Your task to perform on an android device: Is it going to rain today? Image 0: 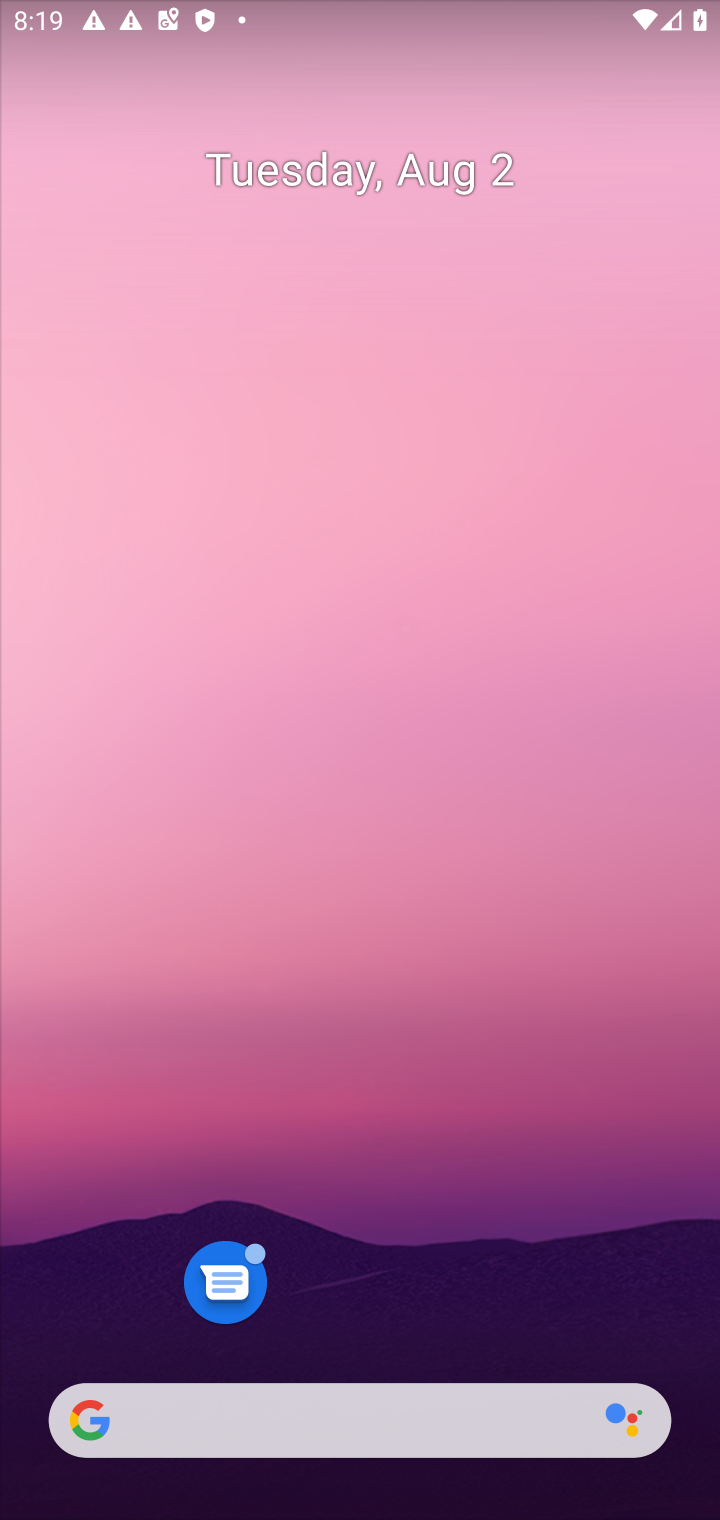
Step 0: drag from (329, 1354) to (378, 14)
Your task to perform on an android device: Is it going to rain today? Image 1: 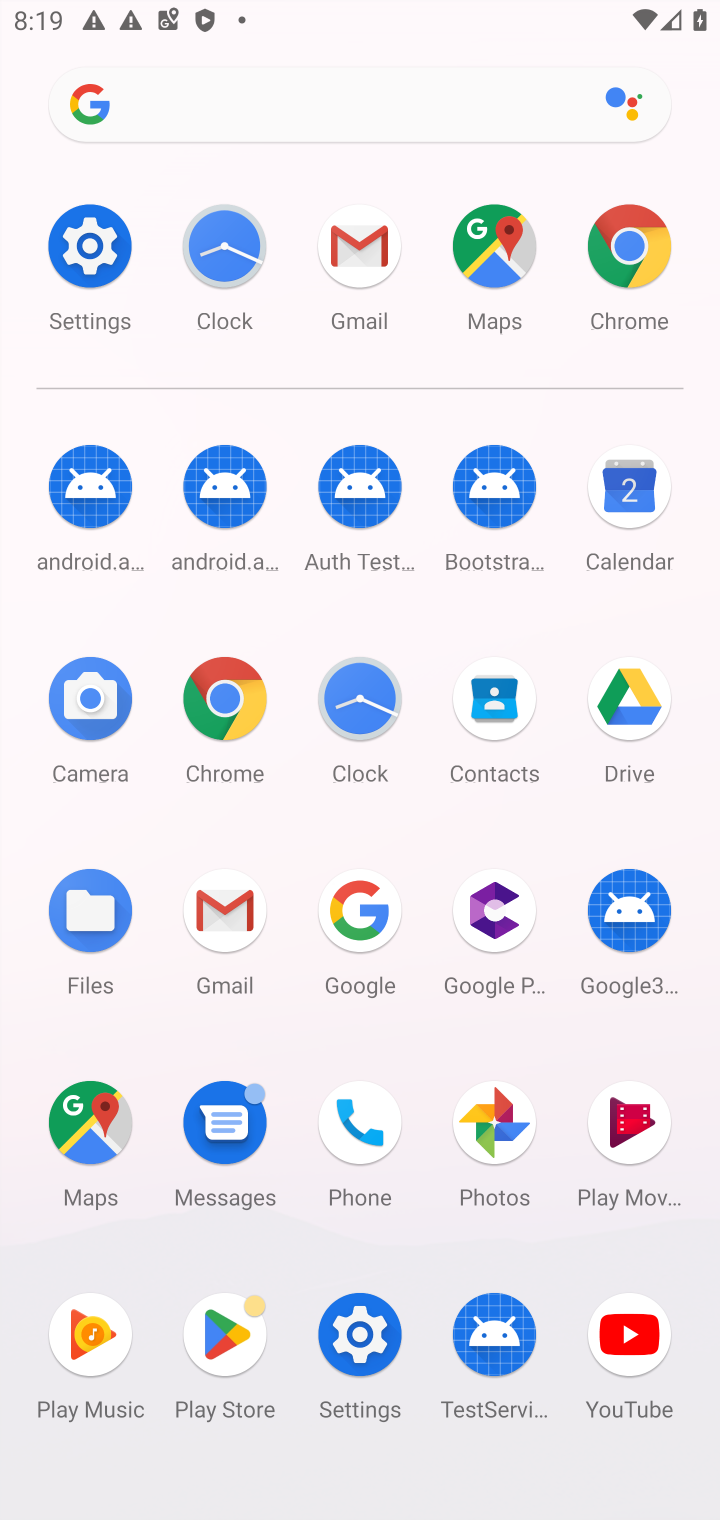
Step 1: click (371, 943)
Your task to perform on an android device: Is it going to rain today? Image 2: 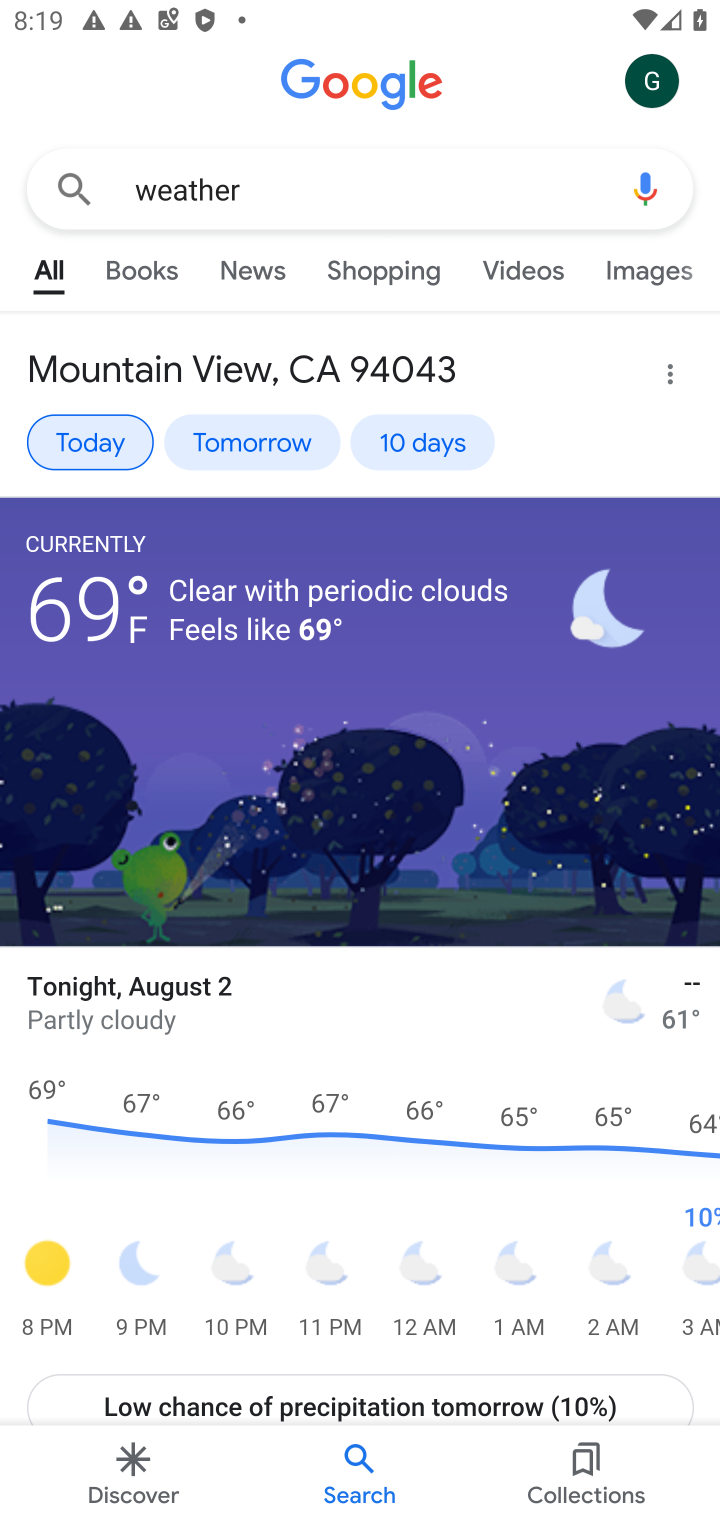
Step 2: click (114, 442)
Your task to perform on an android device: Is it going to rain today? Image 3: 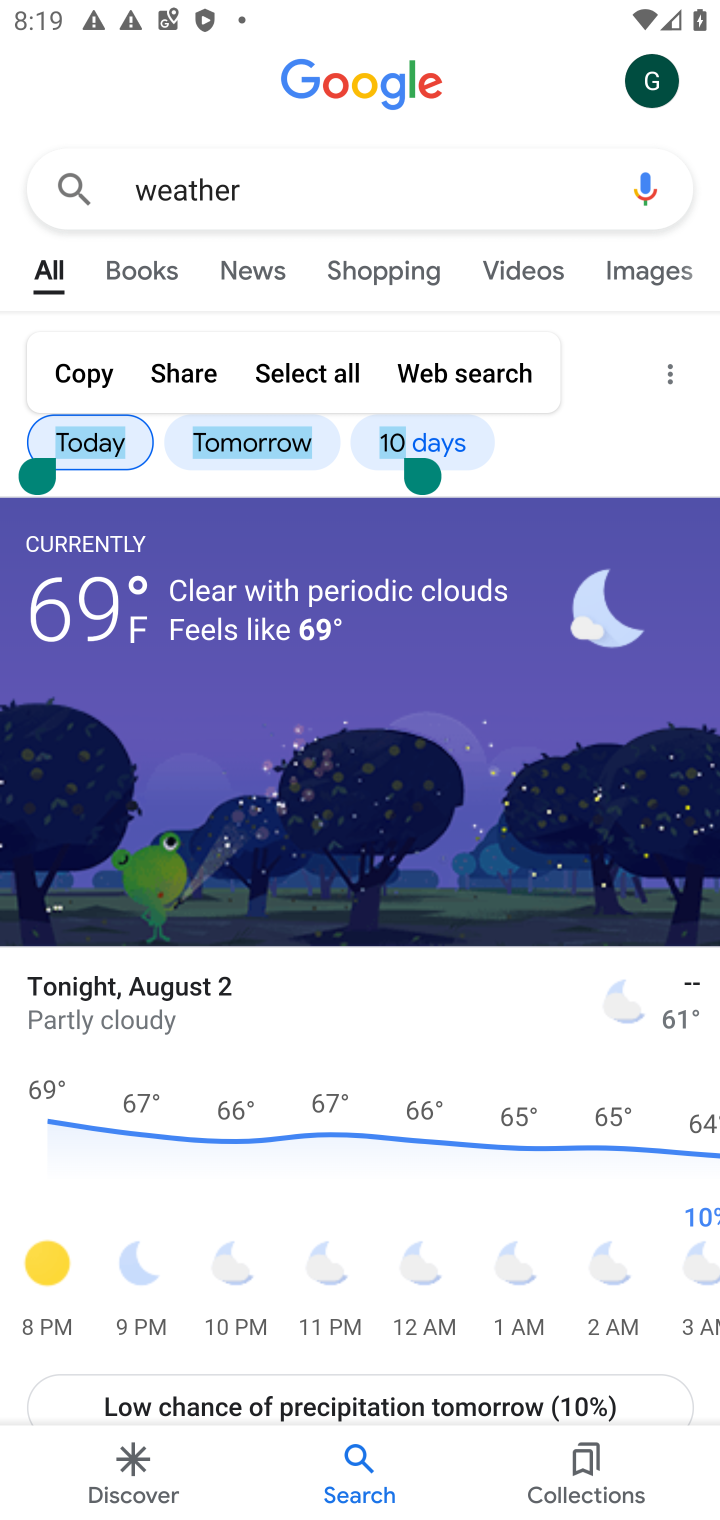
Step 3: task complete